Your task to perform on an android device: manage bookmarks in the chrome app Image 0: 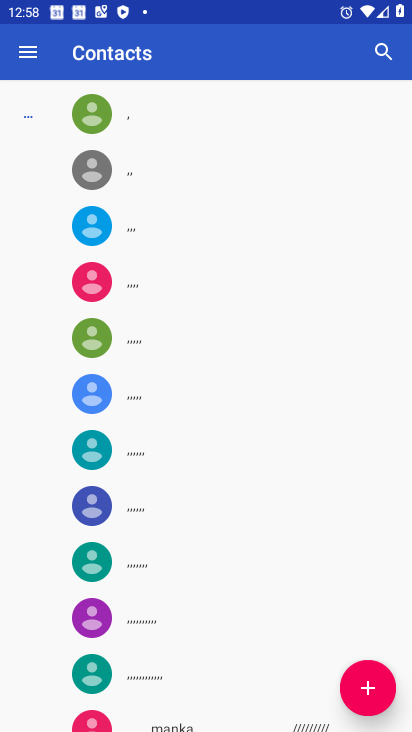
Step 0: press home button
Your task to perform on an android device: manage bookmarks in the chrome app Image 1: 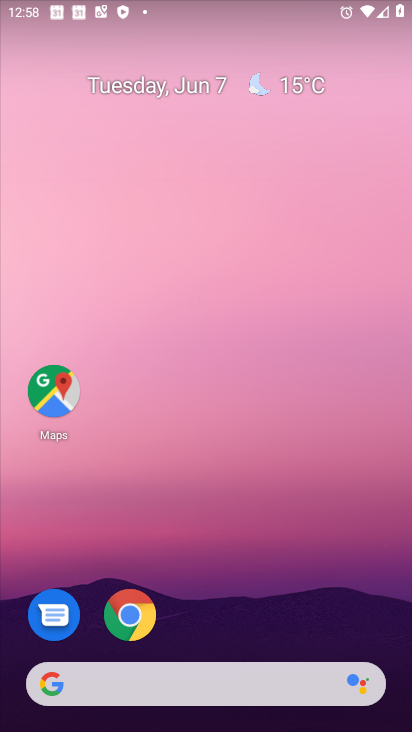
Step 1: click (129, 621)
Your task to perform on an android device: manage bookmarks in the chrome app Image 2: 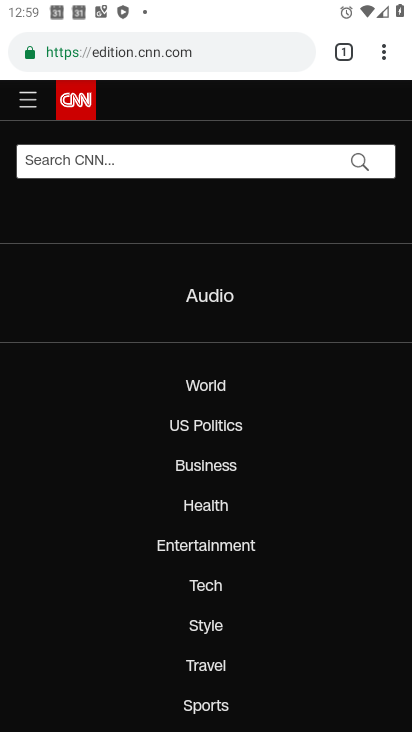
Step 2: click (381, 60)
Your task to perform on an android device: manage bookmarks in the chrome app Image 3: 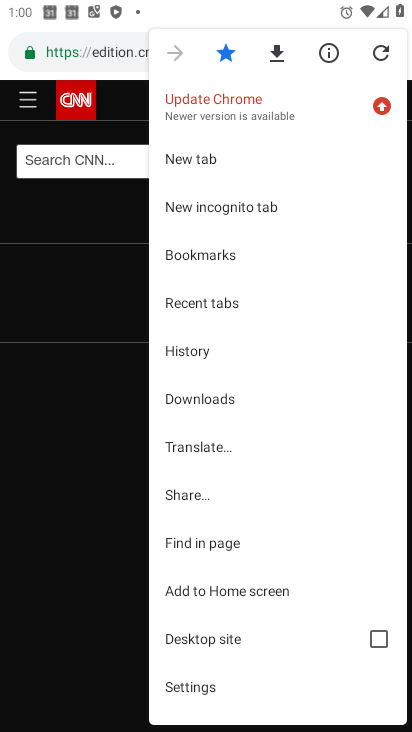
Step 3: click (191, 689)
Your task to perform on an android device: manage bookmarks in the chrome app Image 4: 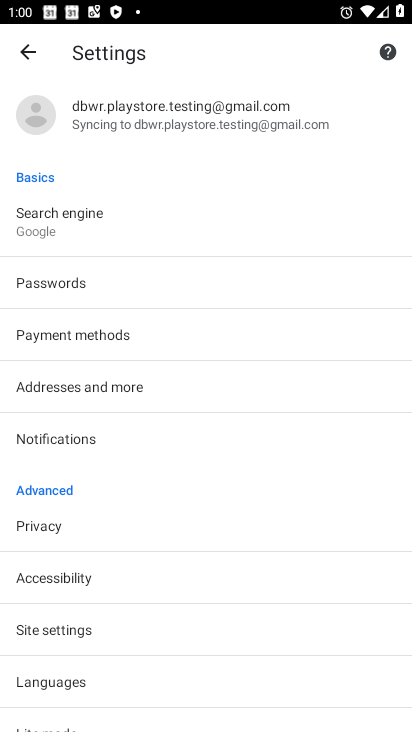
Step 4: press back button
Your task to perform on an android device: manage bookmarks in the chrome app Image 5: 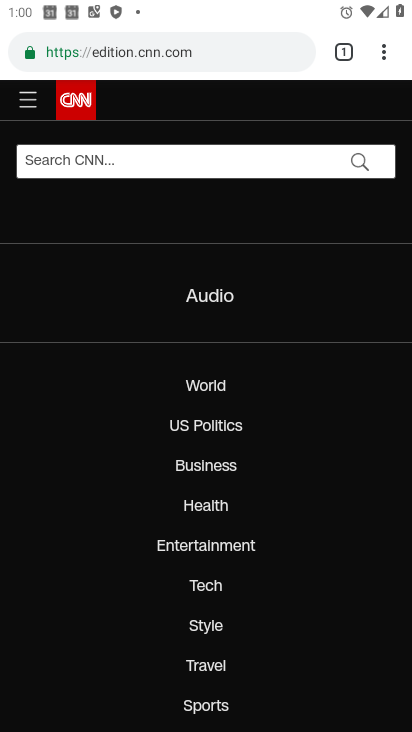
Step 5: click (388, 54)
Your task to perform on an android device: manage bookmarks in the chrome app Image 6: 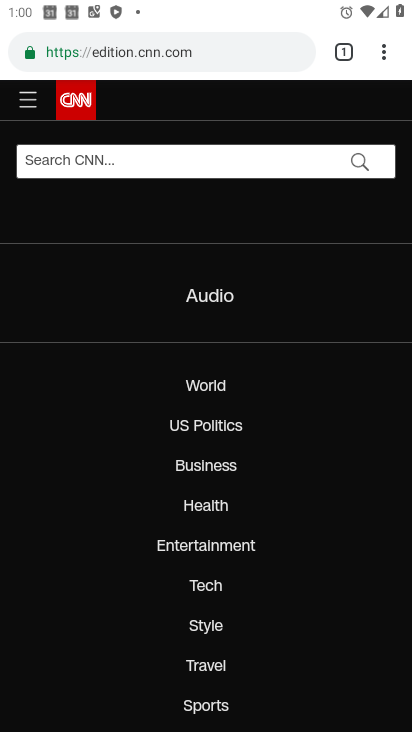
Step 6: click (379, 49)
Your task to perform on an android device: manage bookmarks in the chrome app Image 7: 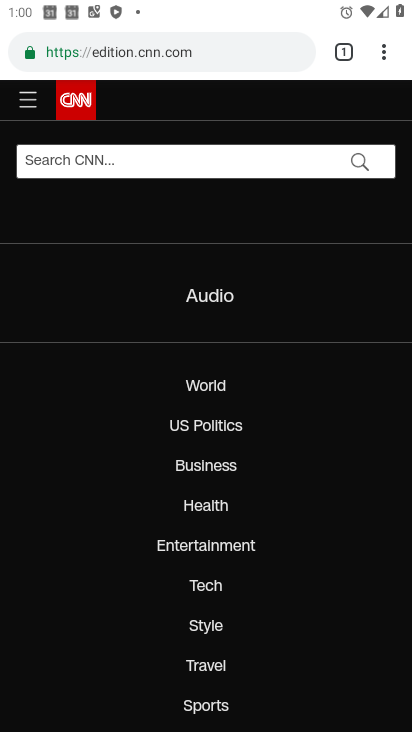
Step 7: click (385, 53)
Your task to perform on an android device: manage bookmarks in the chrome app Image 8: 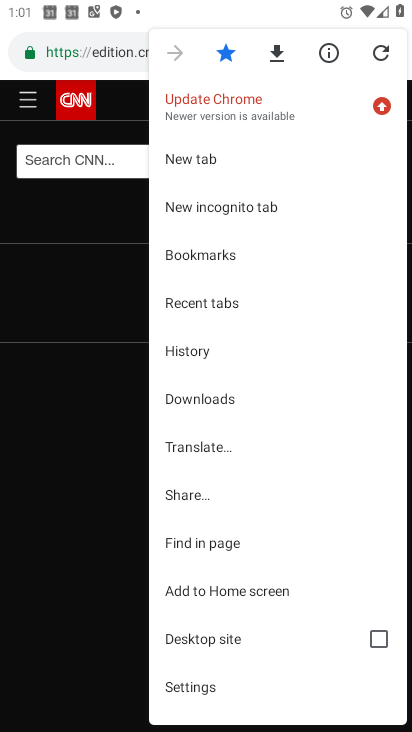
Step 8: click (230, 263)
Your task to perform on an android device: manage bookmarks in the chrome app Image 9: 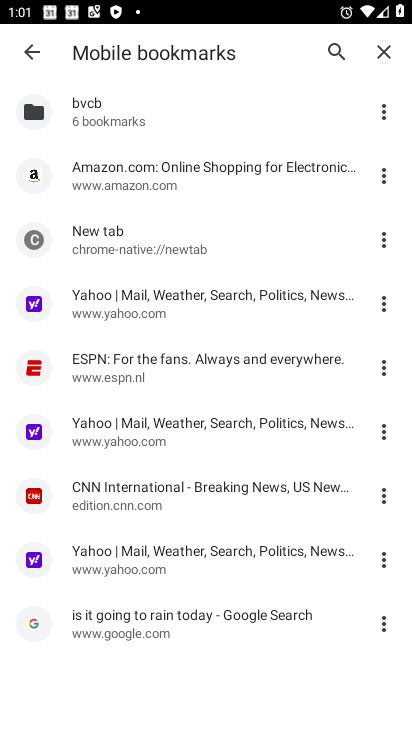
Step 9: click (380, 173)
Your task to perform on an android device: manage bookmarks in the chrome app Image 10: 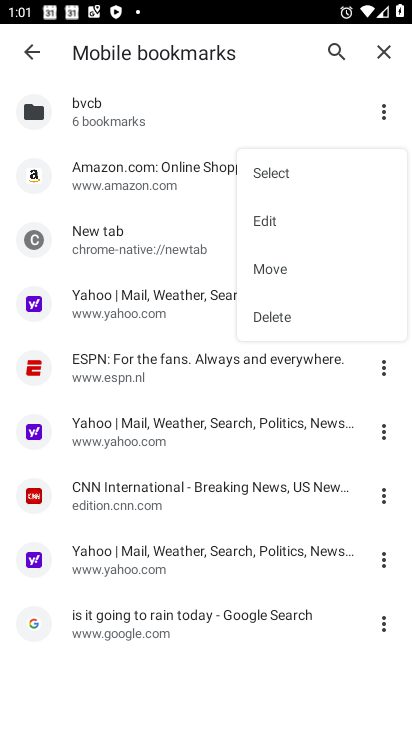
Step 10: click (276, 310)
Your task to perform on an android device: manage bookmarks in the chrome app Image 11: 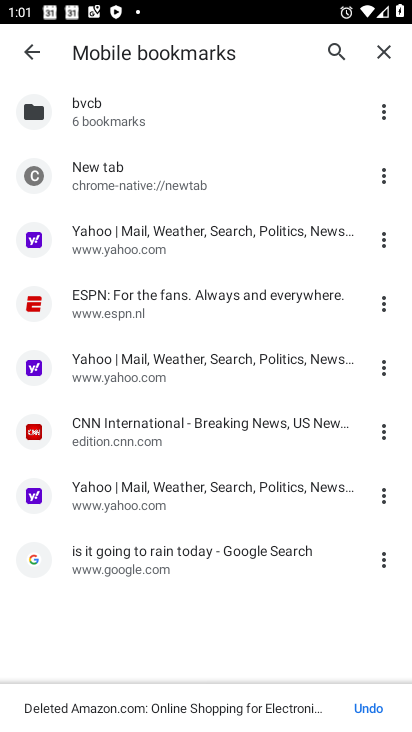
Step 11: task complete